Your task to perform on an android device: Go to settings Image 0: 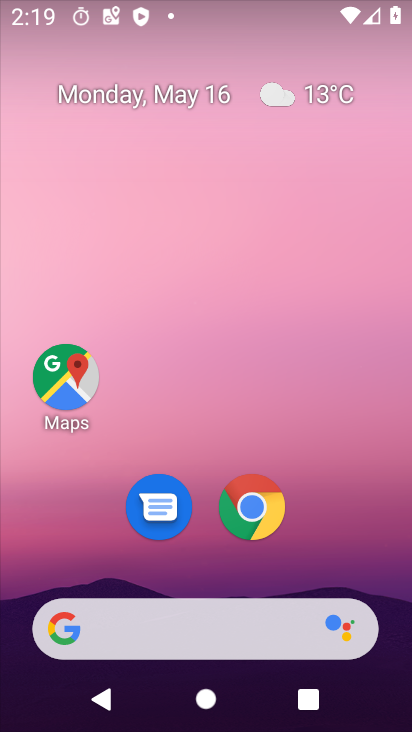
Step 0: drag from (384, 564) to (369, 152)
Your task to perform on an android device: Go to settings Image 1: 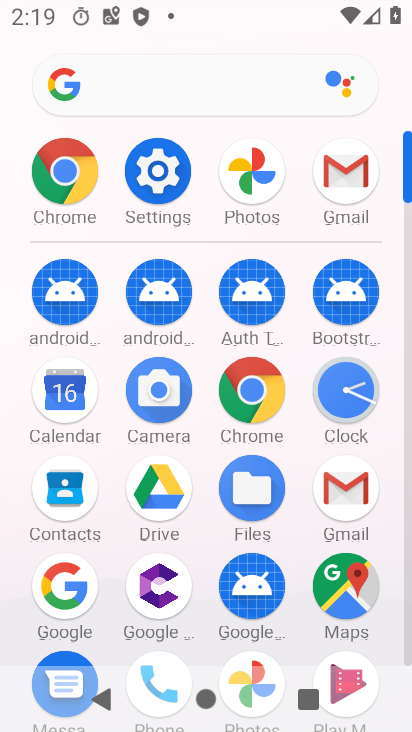
Step 1: click (162, 189)
Your task to perform on an android device: Go to settings Image 2: 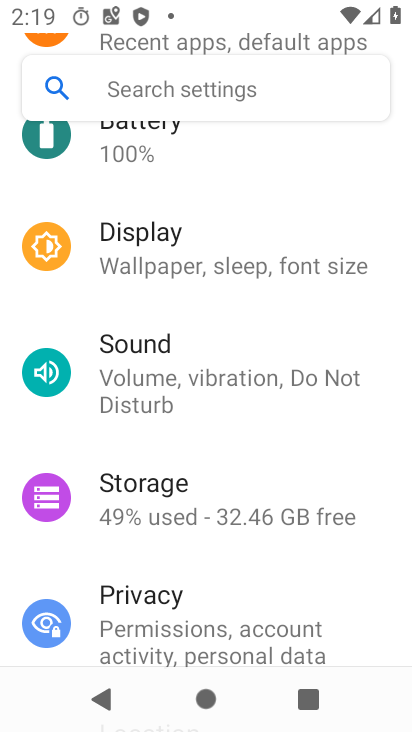
Step 2: task complete